Your task to perform on an android device: Go to Google Image 0: 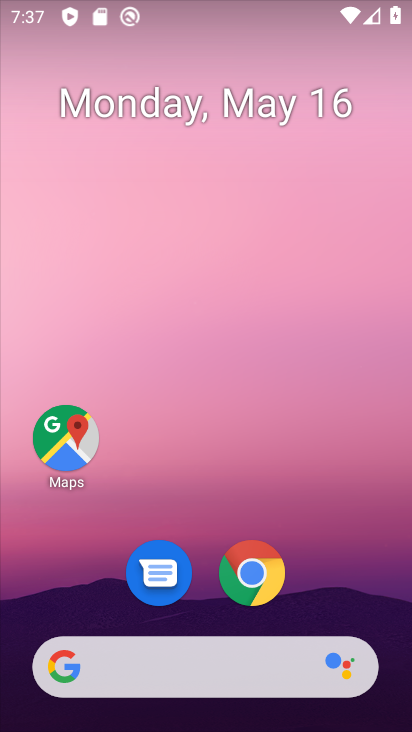
Step 0: drag from (333, 599) to (286, 23)
Your task to perform on an android device: Go to Google Image 1: 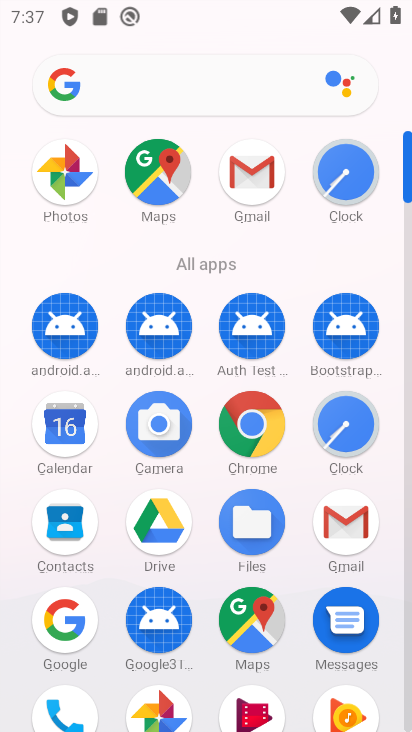
Step 1: click (58, 639)
Your task to perform on an android device: Go to Google Image 2: 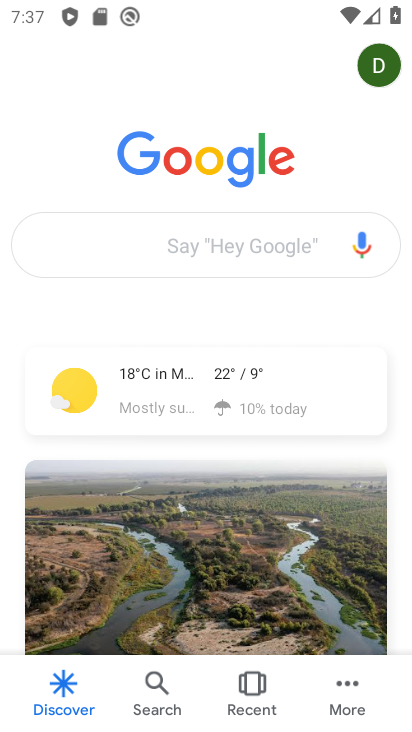
Step 2: task complete